Your task to perform on an android device: stop showing notifications on the lock screen Image 0: 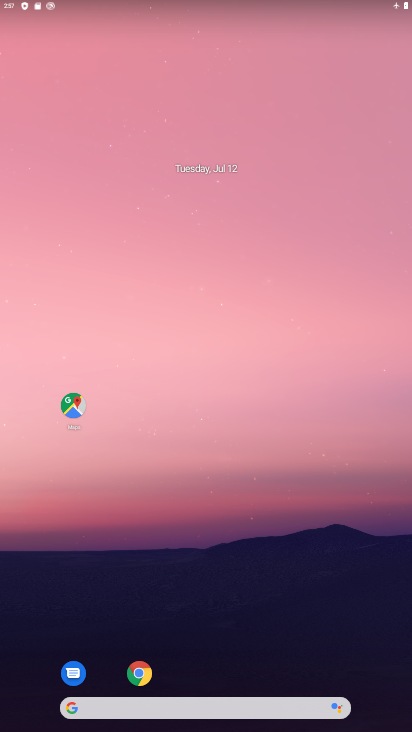
Step 0: drag from (197, 711) to (405, 358)
Your task to perform on an android device: stop showing notifications on the lock screen Image 1: 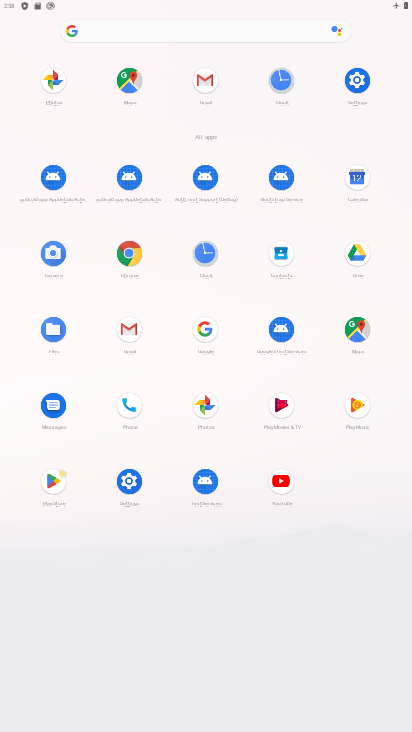
Step 1: click (359, 81)
Your task to perform on an android device: stop showing notifications on the lock screen Image 2: 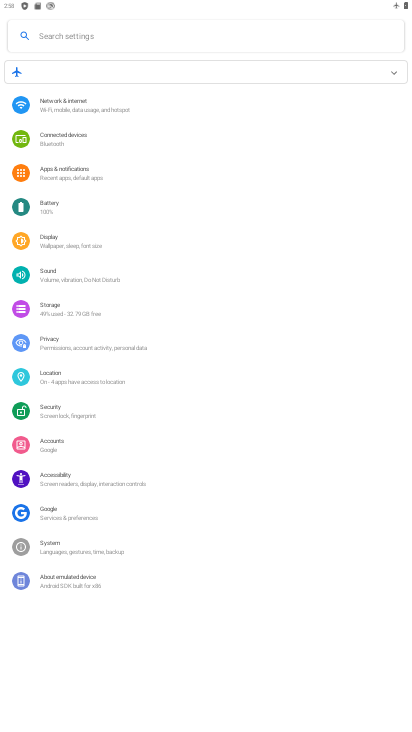
Step 2: click (57, 176)
Your task to perform on an android device: stop showing notifications on the lock screen Image 3: 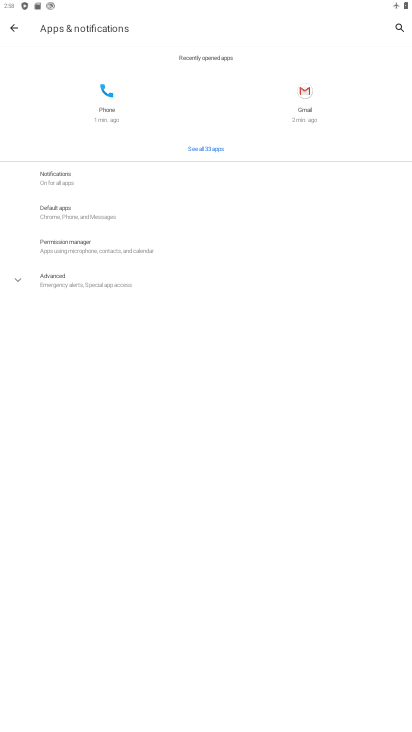
Step 3: click (52, 171)
Your task to perform on an android device: stop showing notifications on the lock screen Image 4: 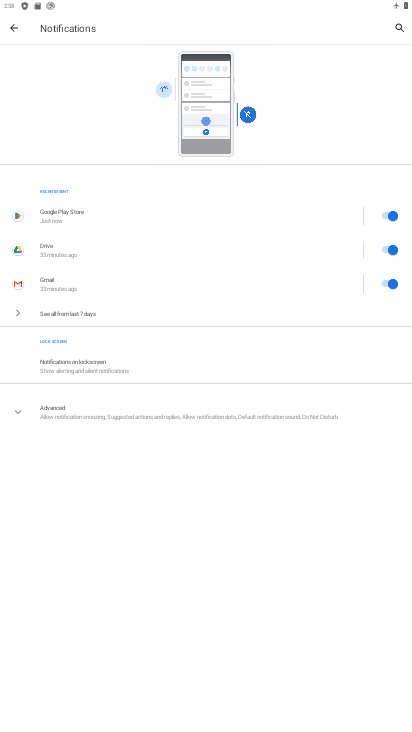
Step 4: click (66, 367)
Your task to perform on an android device: stop showing notifications on the lock screen Image 5: 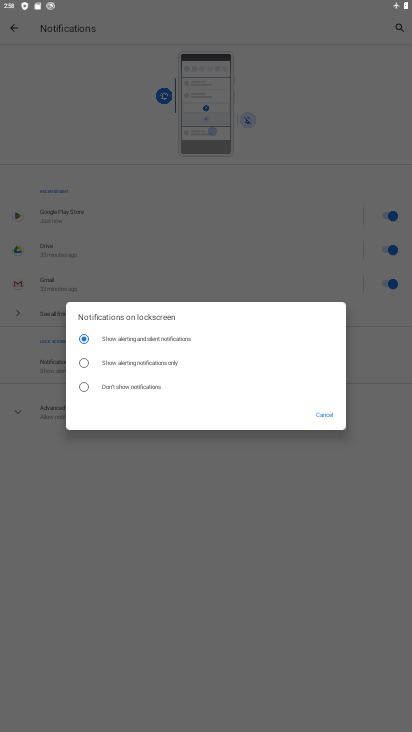
Step 5: click (87, 390)
Your task to perform on an android device: stop showing notifications on the lock screen Image 6: 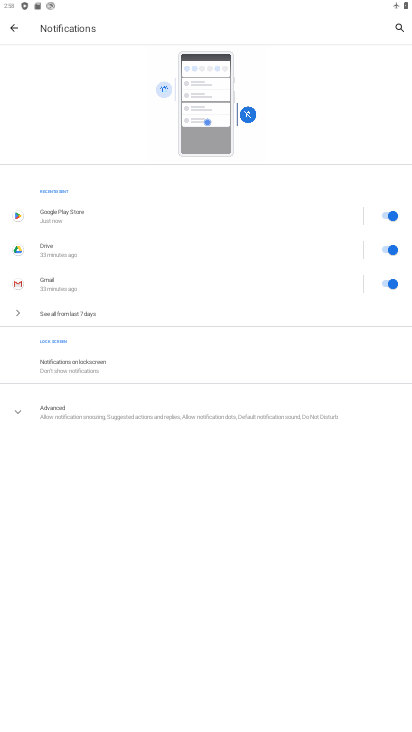
Step 6: task complete